Your task to perform on an android device: add a contact Image 0: 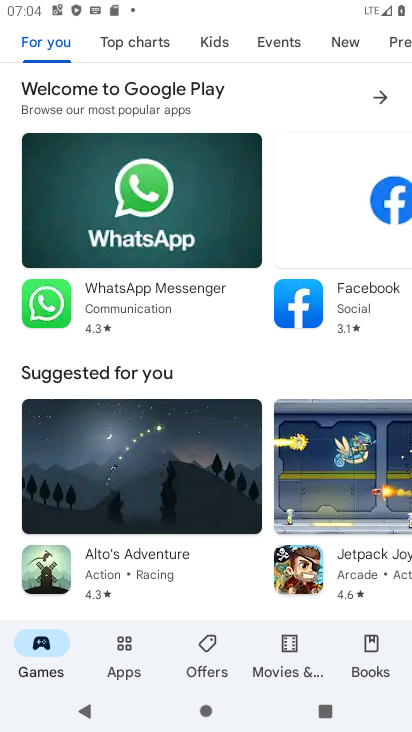
Step 0: press home button
Your task to perform on an android device: add a contact Image 1: 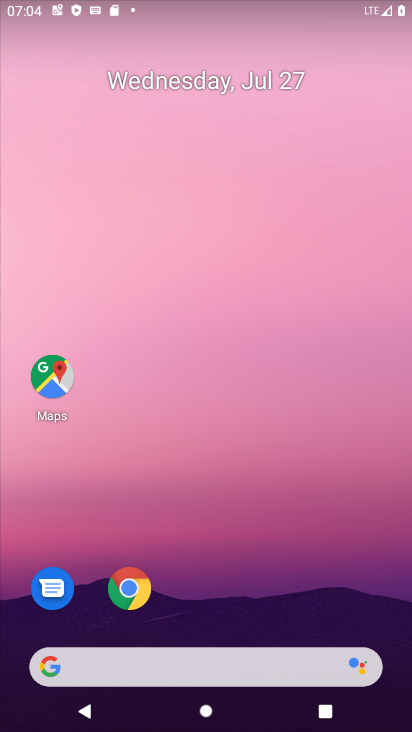
Step 1: drag from (179, 666) to (364, 1)
Your task to perform on an android device: add a contact Image 2: 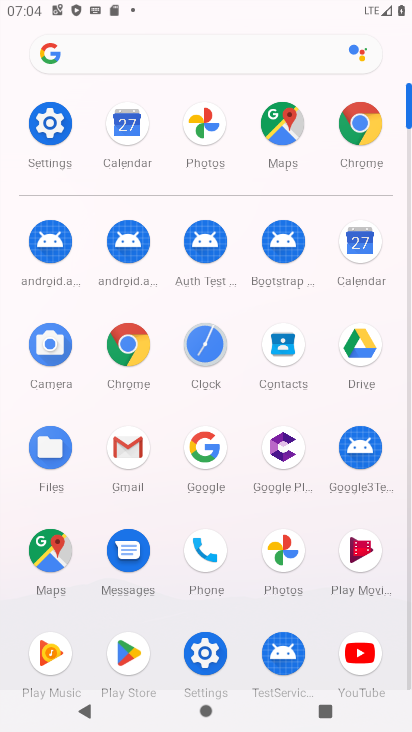
Step 2: click (271, 353)
Your task to perform on an android device: add a contact Image 3: 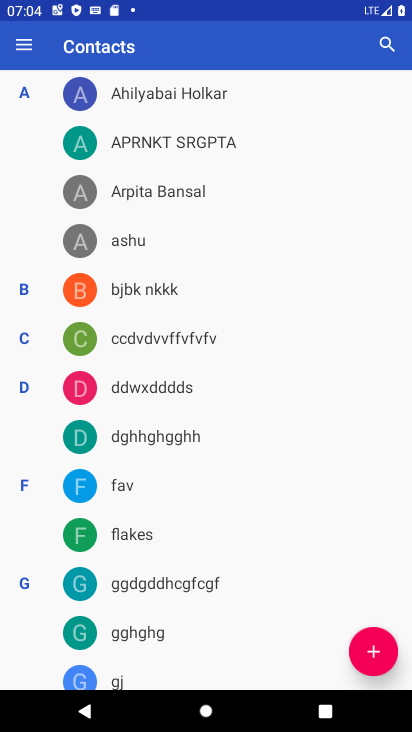
Step 3: click (371, 639)
Your task to perform on an android device: add a contact Image 4: 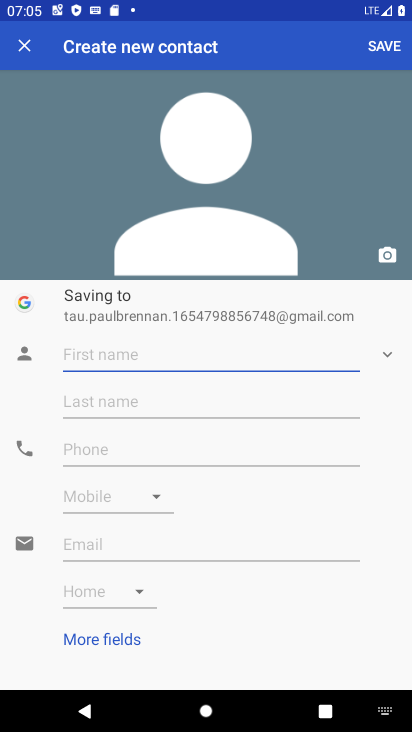
Step 4: type "sonu"
Your task to perform on an android device: add a contact Image 5: 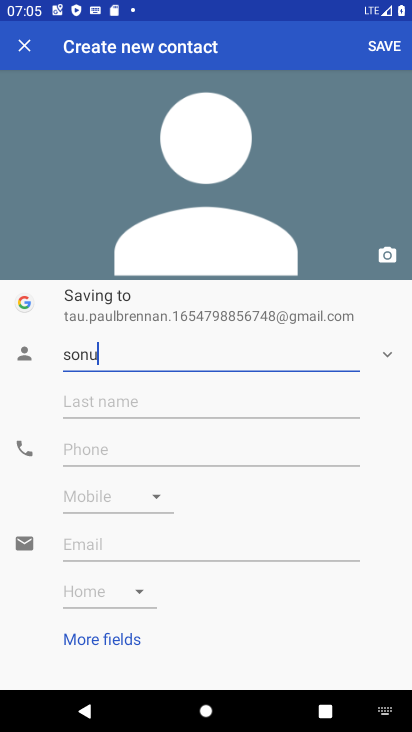
Step 5: click (129, 449)
Your task to perform on an android device: add a contact Image 6: 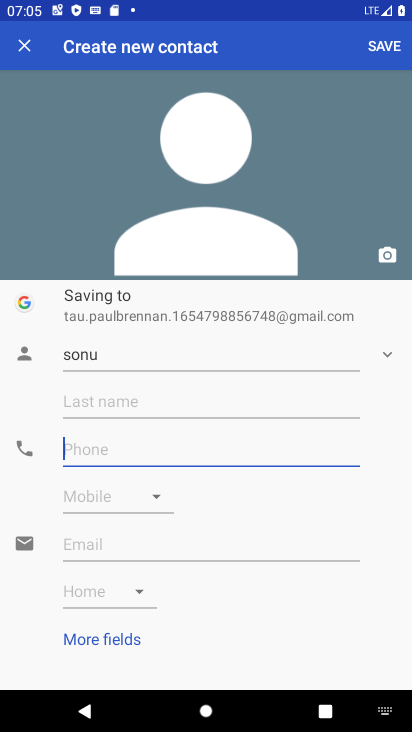
Step 6: type "8976546789"
Your task to perform on an android device: add a contact Image 7: 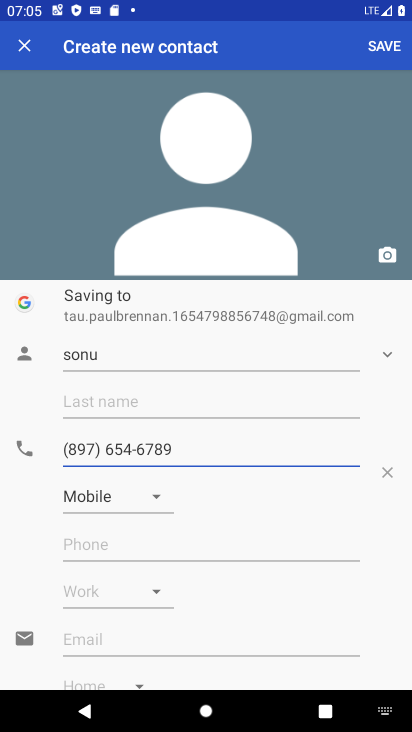
Step 7: click (377, 46)
Your task to perform on an android device: add a contact Image 8: 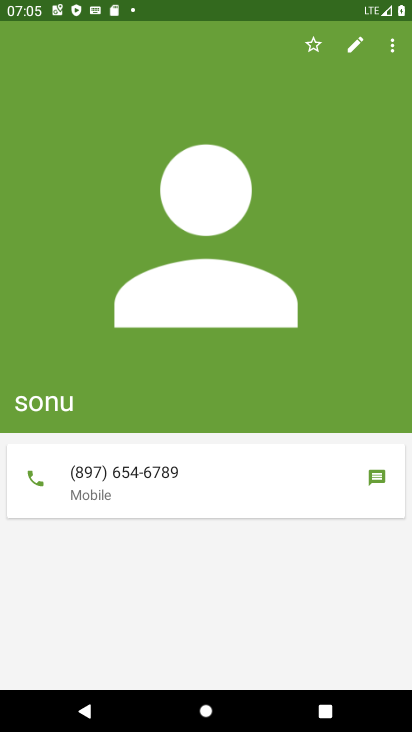
Step 8: task complete